Your task to perform on an android device: find photos in the google photos app Image 0: 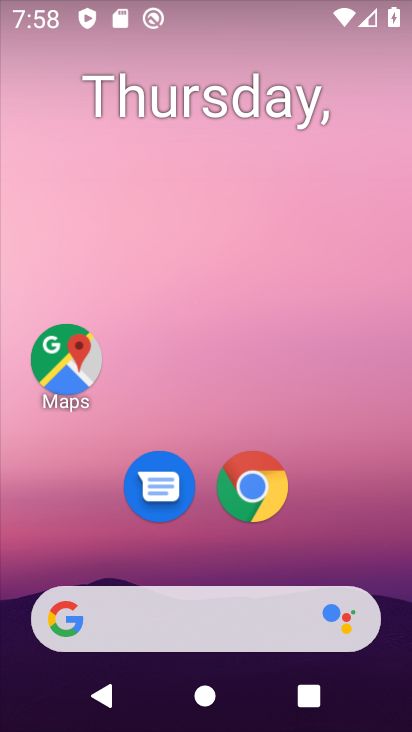
Step 0: drag from (215, 629) to (285, 91)
Your task to perform on an android device: find photos in the google photos app Image 1: 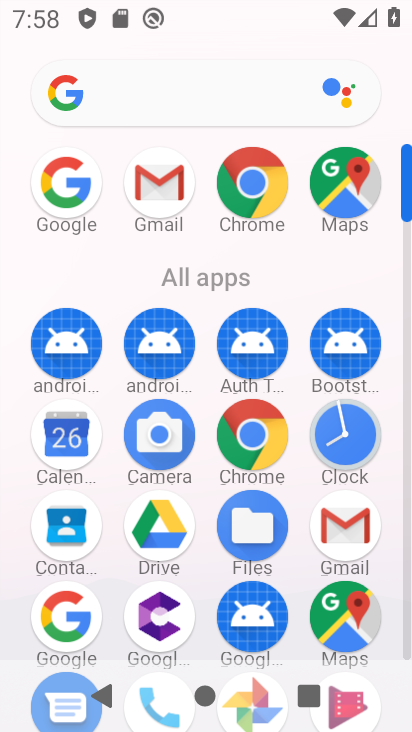
Step 1: drag from (305, 561) to (362, 94)
Your task to perform on an android device: find photos in the google photos app Image 2: 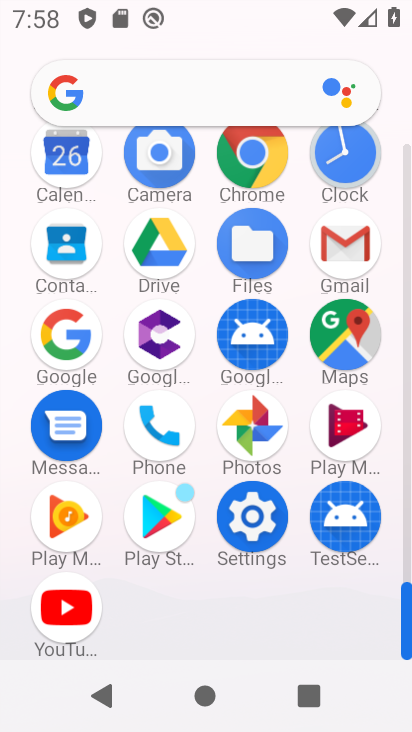
Step 2: click (266, 439)
Your task to perform on an android device: find photos in the google photos app Image 3: 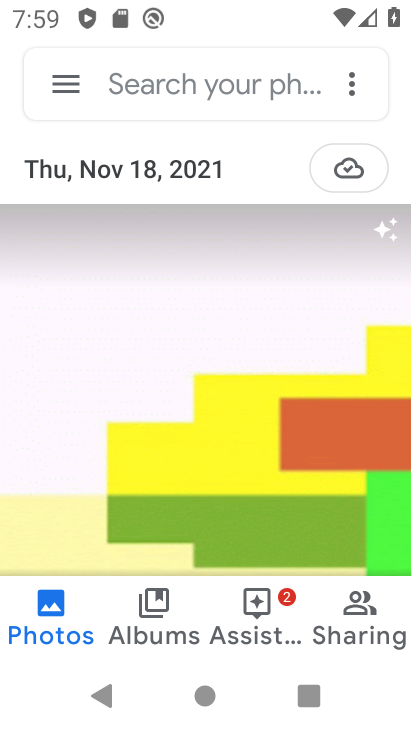
Step 3: task complete